Your task to perform on an android device: empty trash in the gmail app Image 0: 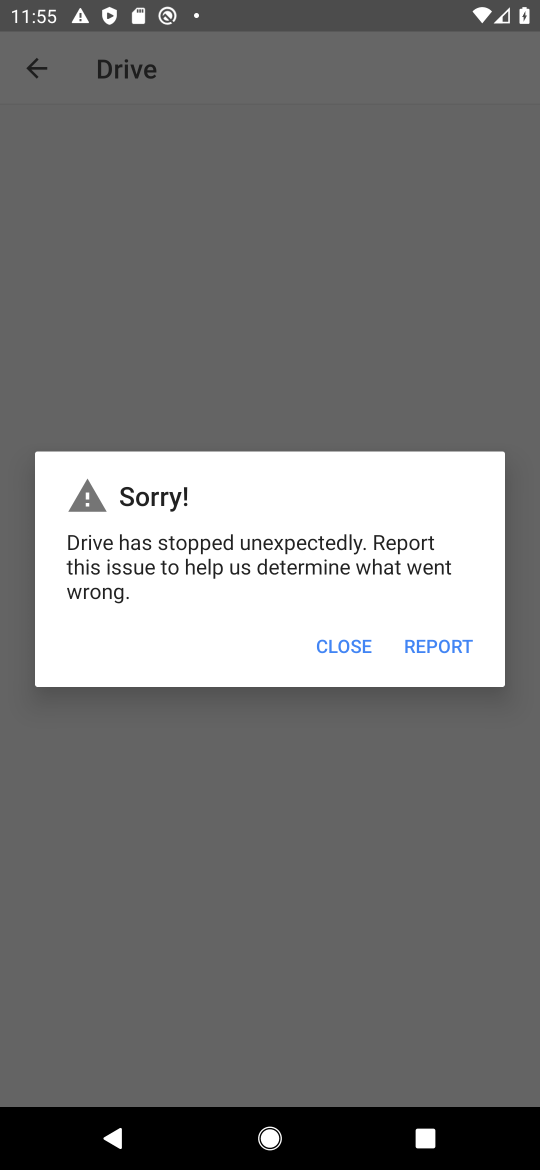
Step 0: press home button
Your task to perform on an android device: empty trash in the gmail app Image 1: 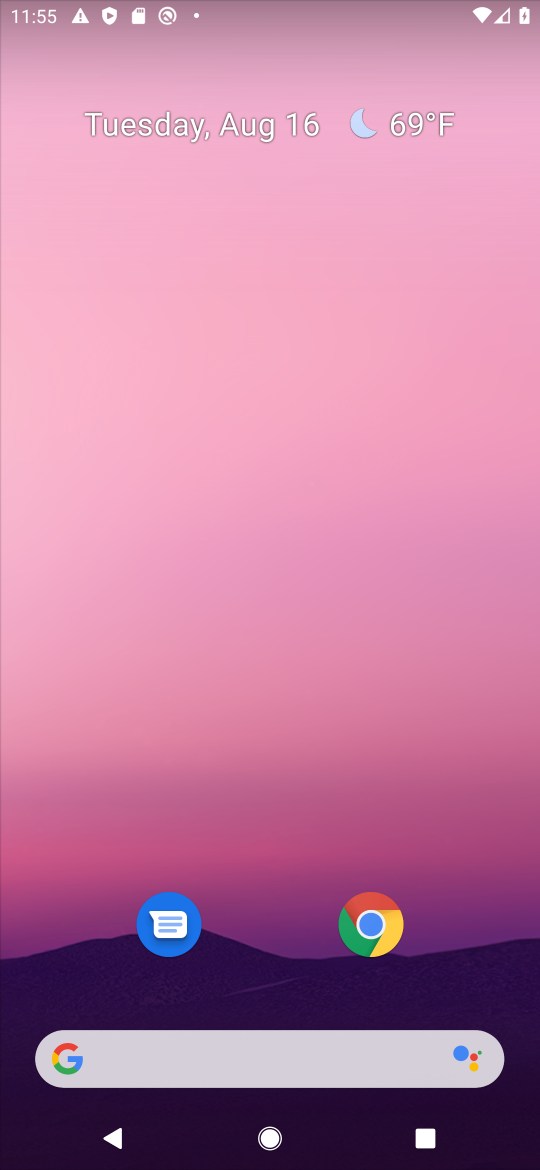
Step 1: drag from (229, 970) to (274, 157)
Your task to perform on an android device: empty trash in the gmail app Image 2: 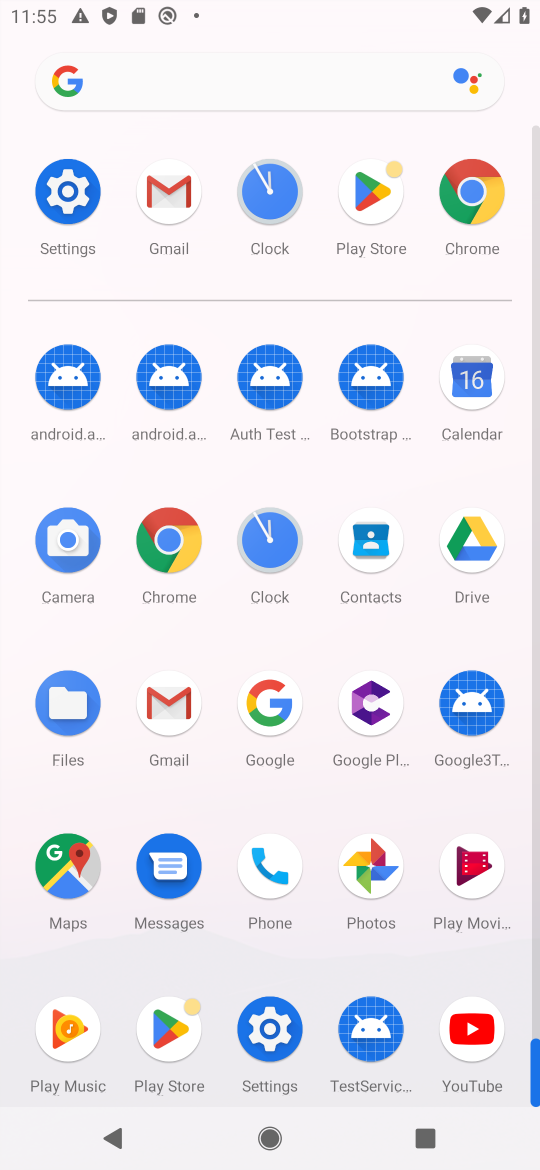
Step 2: click (187, 199)
Your task to perform on an android device: empty trash in the gmail app Image 3: 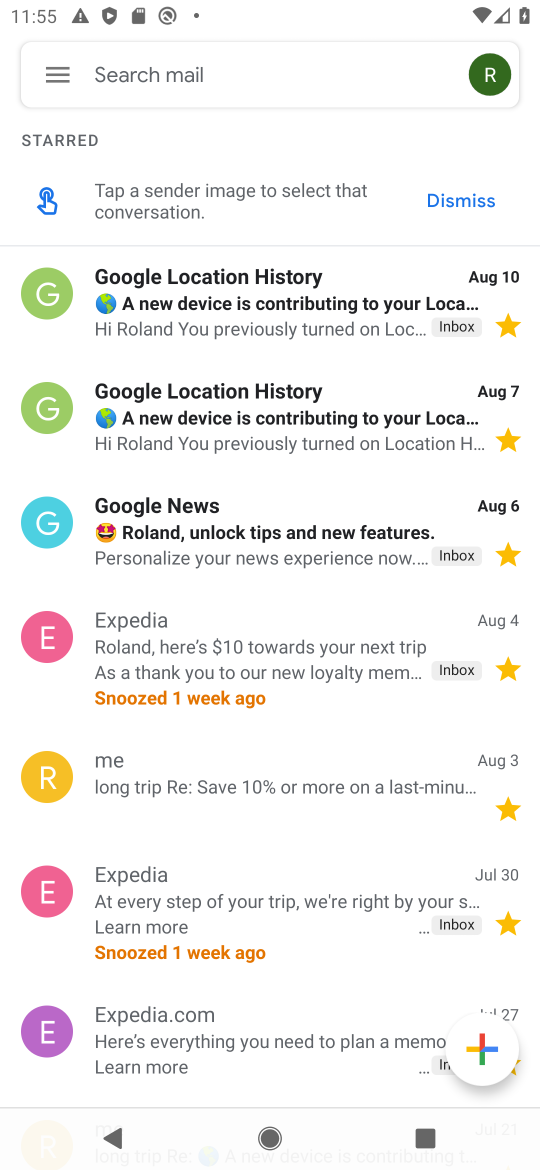
Step 3: click (70, 85)
Your task to perform on an android device: empty trash in the gmail app Image 4: 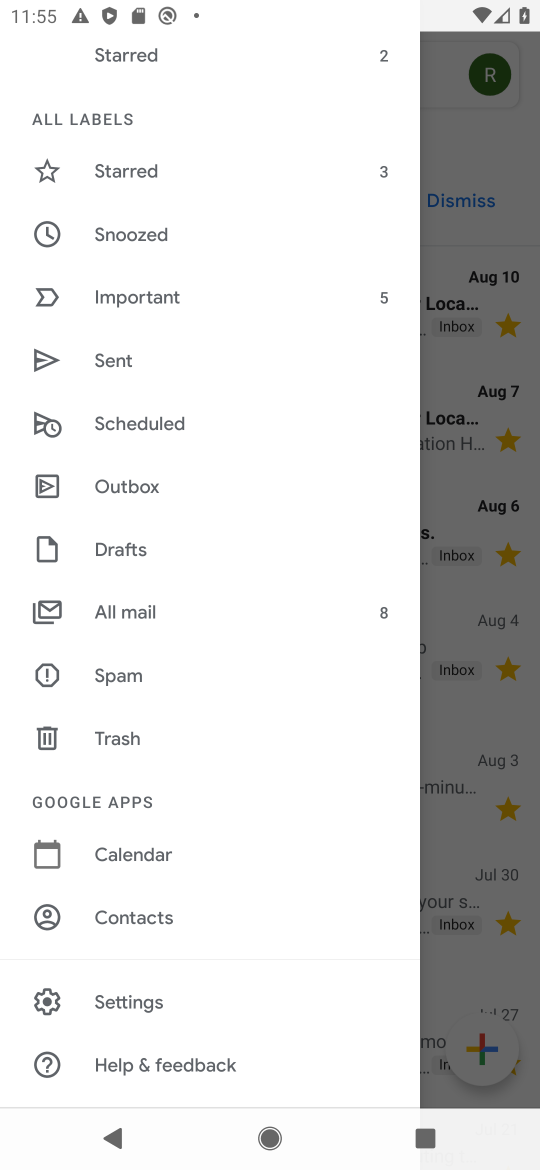
Step 4: click (157, 737)
Your task to perform on an android device: empty trash in the gmail app Image 5: 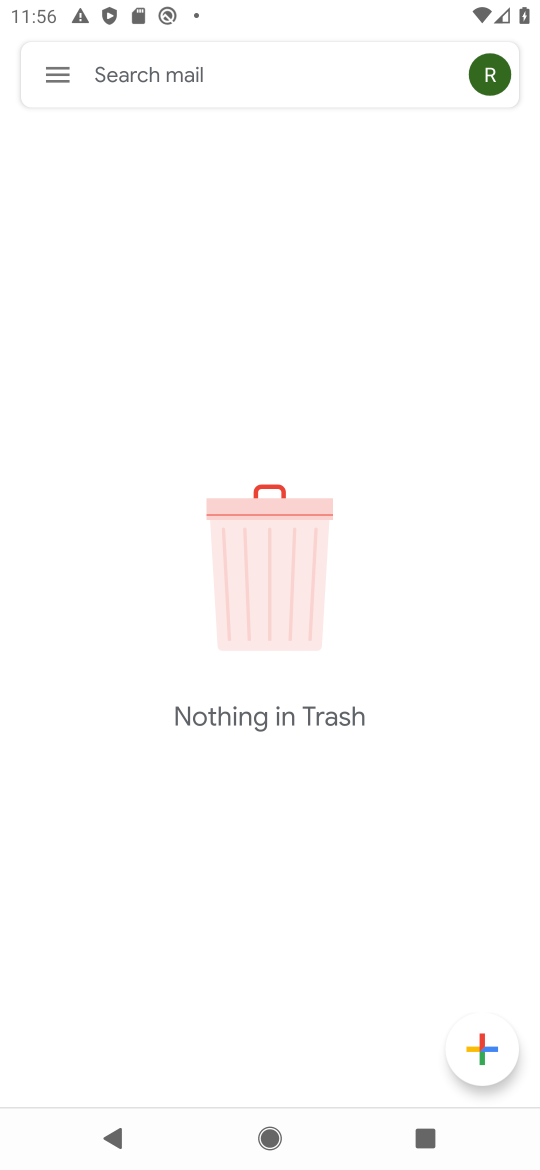
Step 5: task complete